Your task to perform on an android device: clear all cookies in the chrome app Image 0: 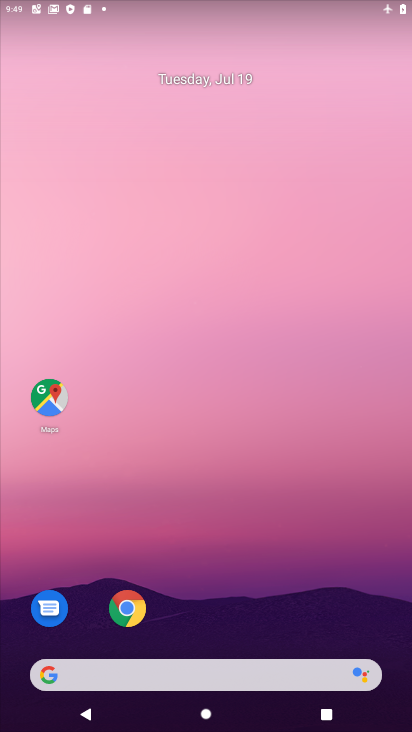
Step 0: drag from (258, 620) to (160, 112)
Your task to perform on an android device: clear all cookies in the chrome app Image 1: 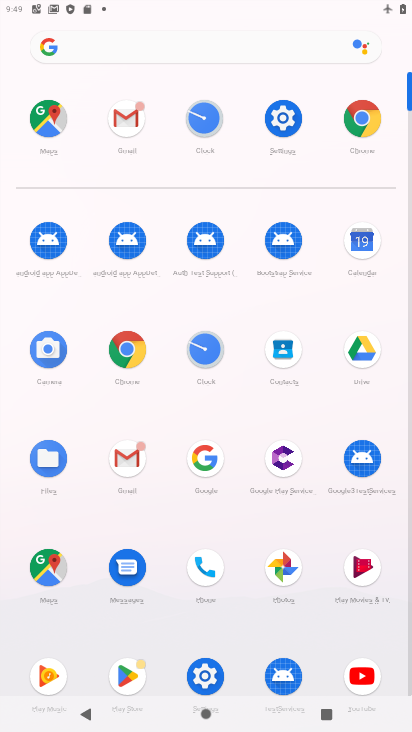
Step 1: click (359, 119)
Your task to perform on an android device: clear all cookies in the chrome app Image 2: 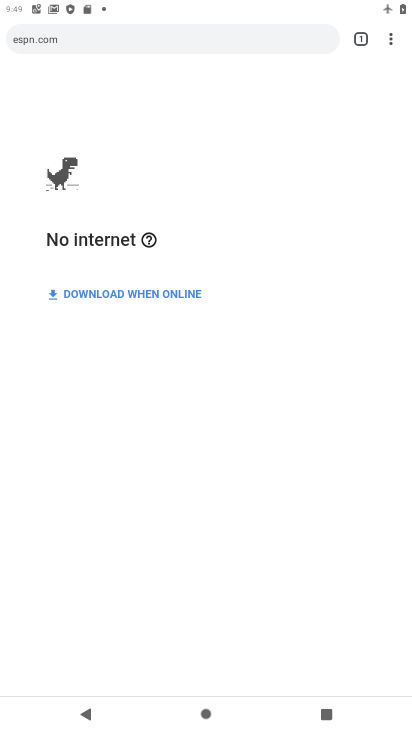
Step 2: drag from (395, 40) to (245, 433)
Your task to perform on an android device: clear all cookies in the chrome app Image 3: 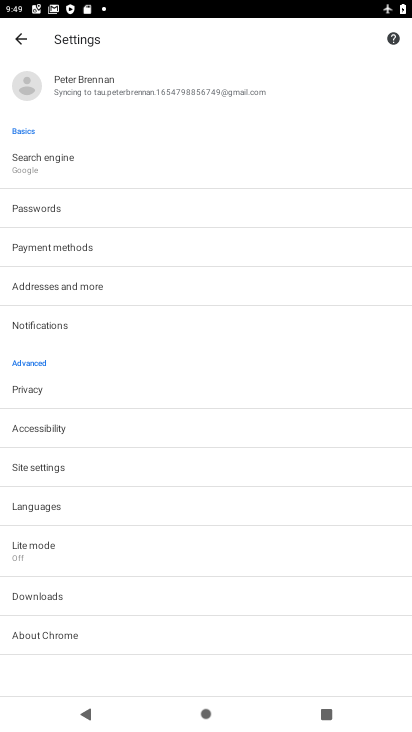
Step 3: click (14, 30)
Your task to perform on an android device: clear all cookies in the chrome app Image 4: 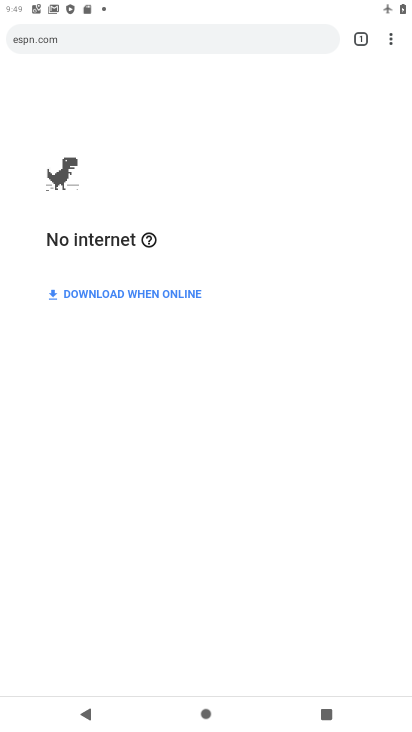
Step 4: click (390, 34)
Your task to perform on an android device: clear all cookies in the chrome app Image 5: 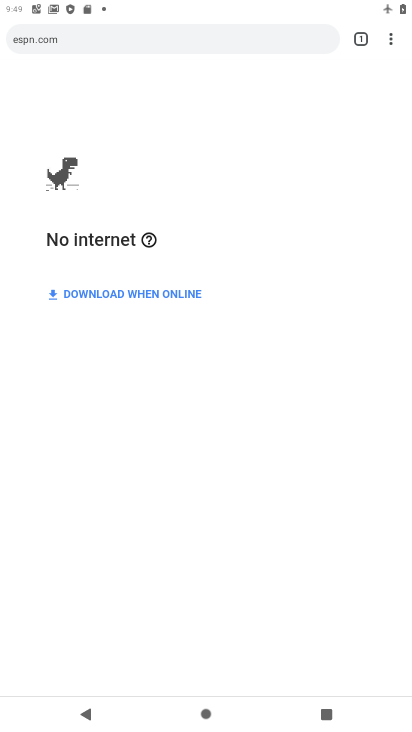
Step 5: task complete